Your task to perform on an android device: toggle location history Image 0: 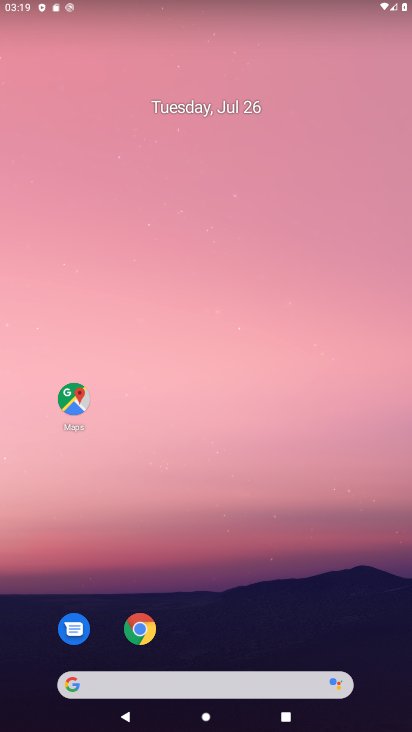
Step 0: drag from (256, 602) to (289, 47)
Your task to perform on an android device: toggle location history Image 1: 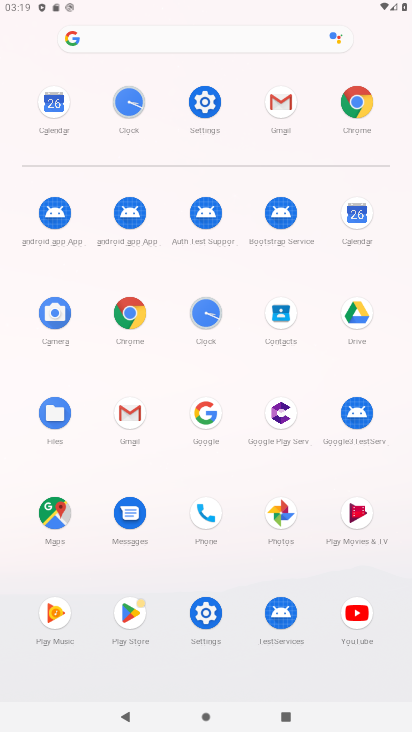
Step 1: click (51, 505)
Your task to perform on an android device: toggle location history Image 2: 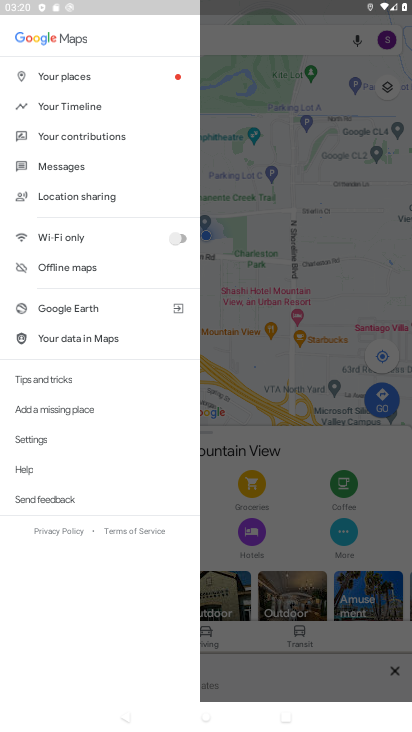
Step 2: click (42, 442)
Your task to perform on an android device: toggle location history Image 3: 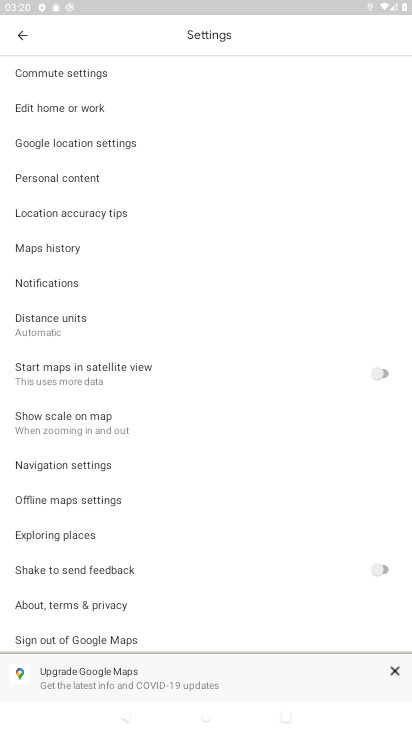
Step 3: drag from (156, 587) to (157, 338)
Your task to perform on an android device: toggle location history Image 4: 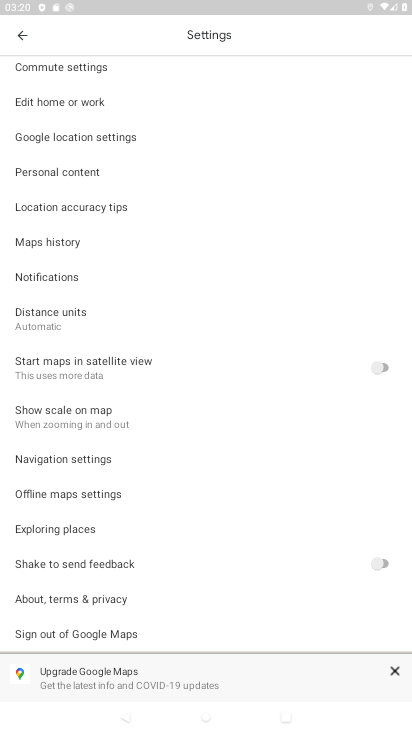
Step 4: click (24, 33)
Your task to perform on an android device: toggle location history Image 5: 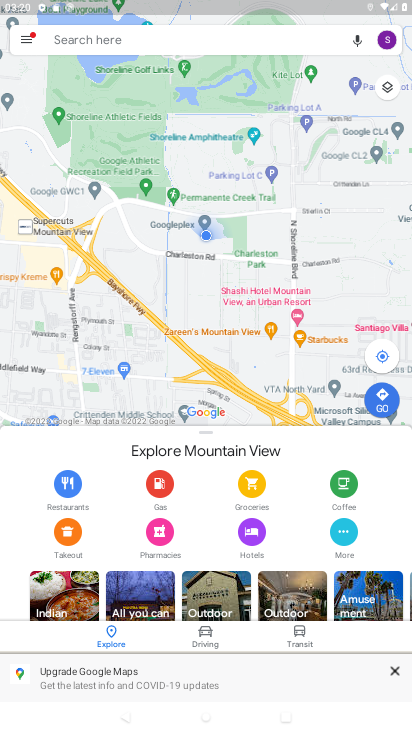
Step 5: click (27, 34)
Your task to perform on an android device: toggle location history Image 6: 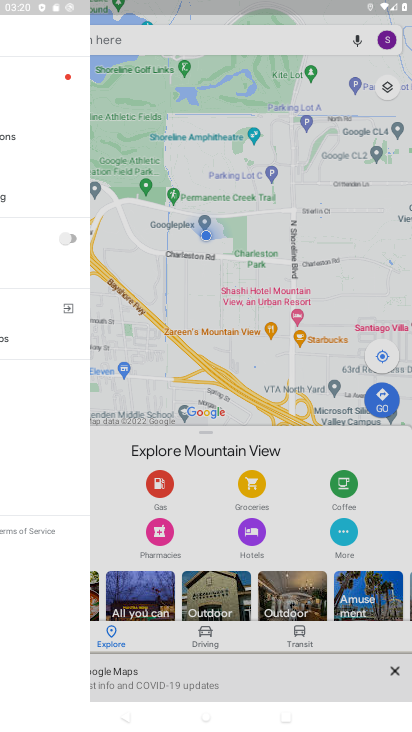
Step 6: drag from (30, 37) to (75, 105)
Your task to perform on an android device: toggle location history Image 7: 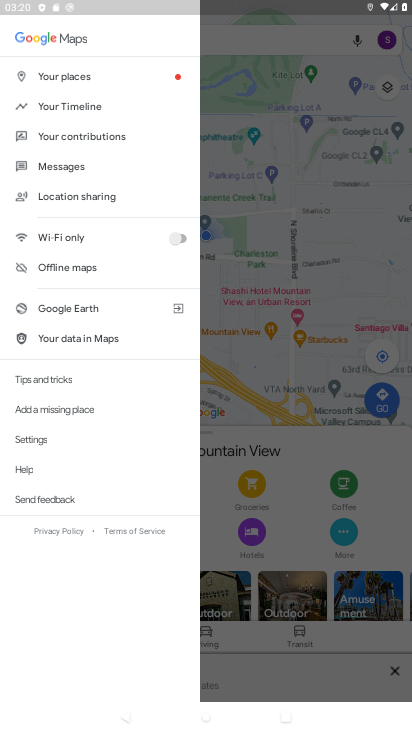
Step 7: click (75, 105)
Your task to perform on an android device: toggle location history Image 8: 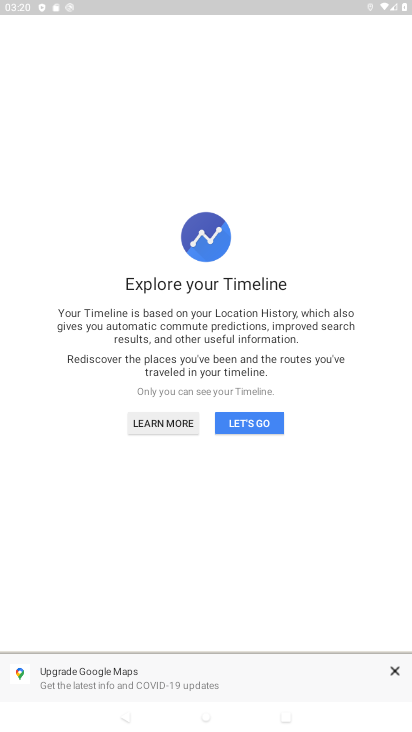
Step 8: click (248, 419)
Your task to perform on an android device: toggle location history Image 9: 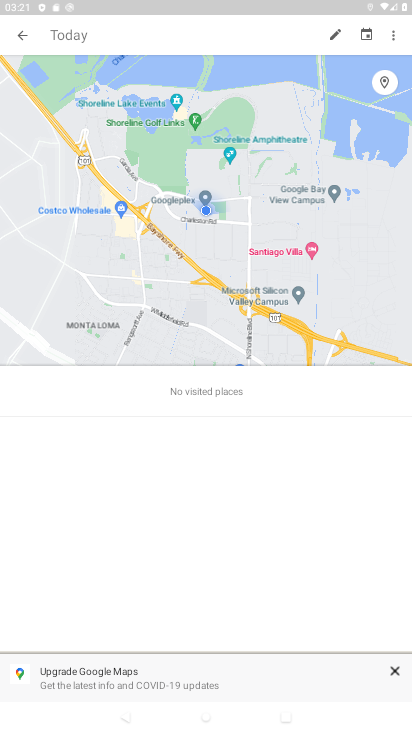
Step 9: click (390, 25)
Your task to perform on an android device: toggle location history Image 10: 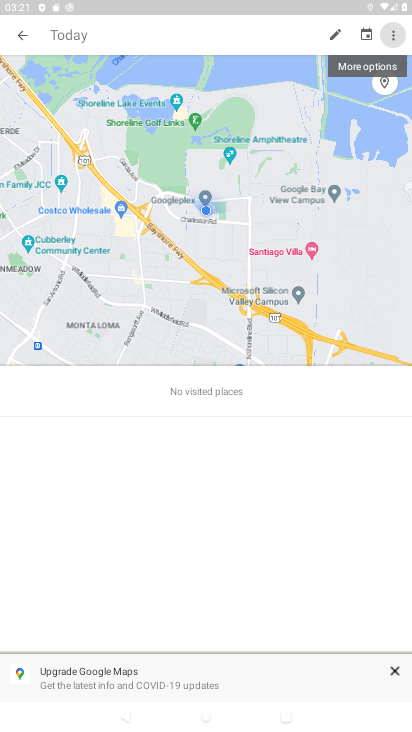
Step 10: click (390, 25)
Your task to perform on an android device: toggle location history Image 11: 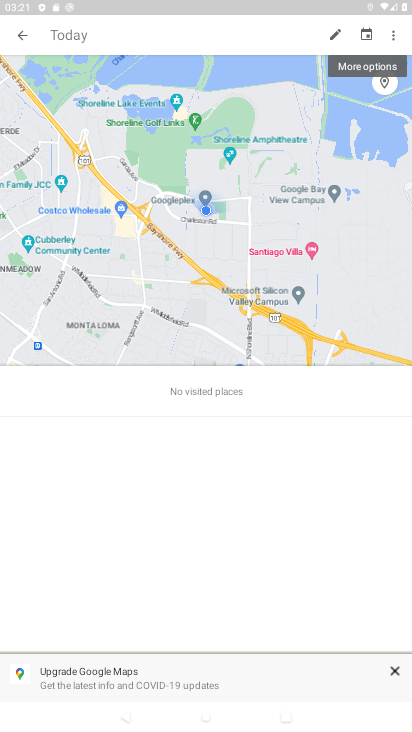
Step 11: click (392, 39)
Your task to perform on an android device: toggle location history Image 12: 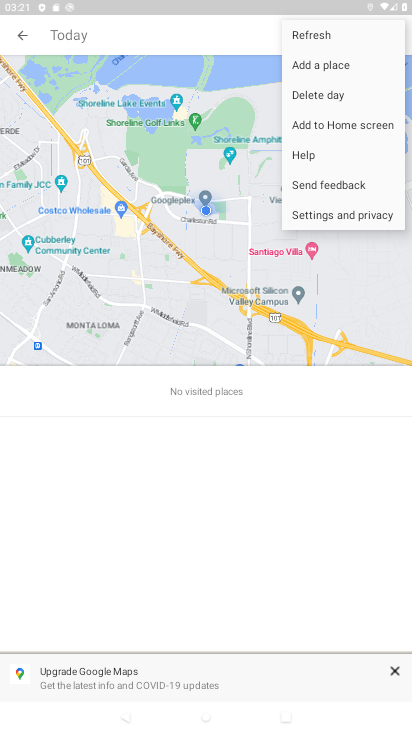
Step 12: click (330, 217)
Your task to perform on an android device: toggle location history Image 13: 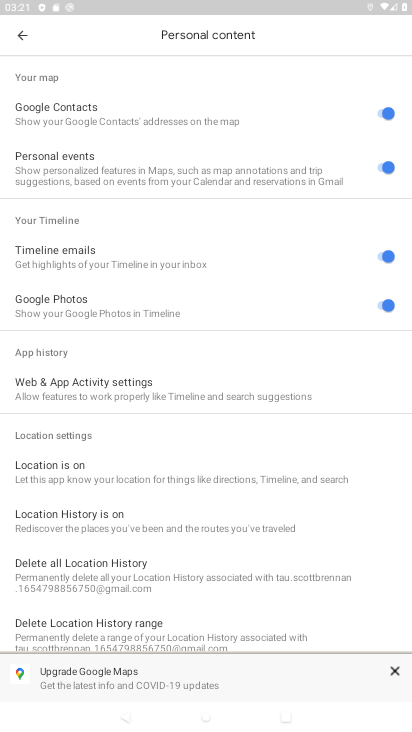
Step 13: click (97, 513)
Your task to perform on an android device: toggle location history Image 14: 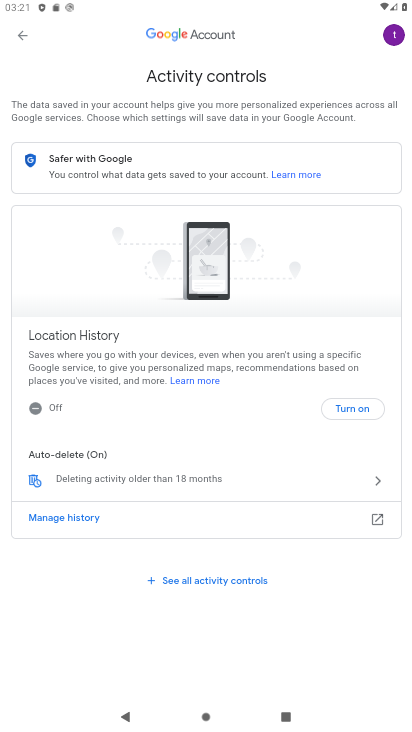
Step 14: click (338, 402)
Your task to perform on an android device: toggle location history Image 15: 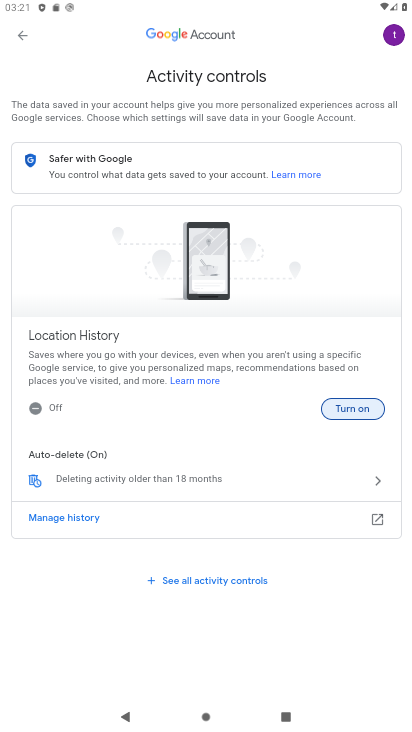
Step 15: click (353, 405)
Your task to perform on an android device: toggle location history Image 16: 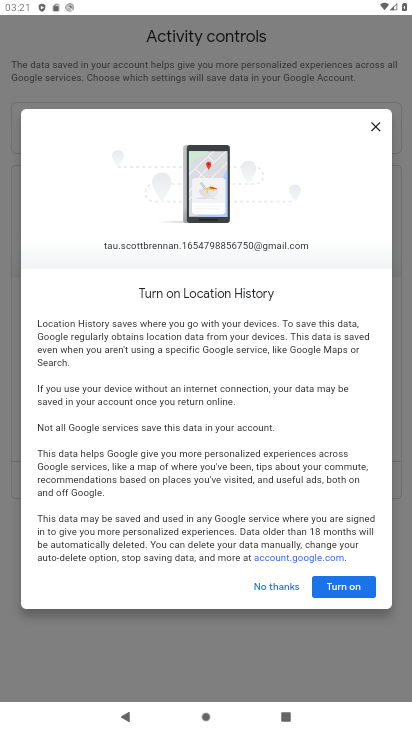
Step 16: drag from (262, 496) to (283, 224)
Your task to perform on an android device: toggle location history Image 17: 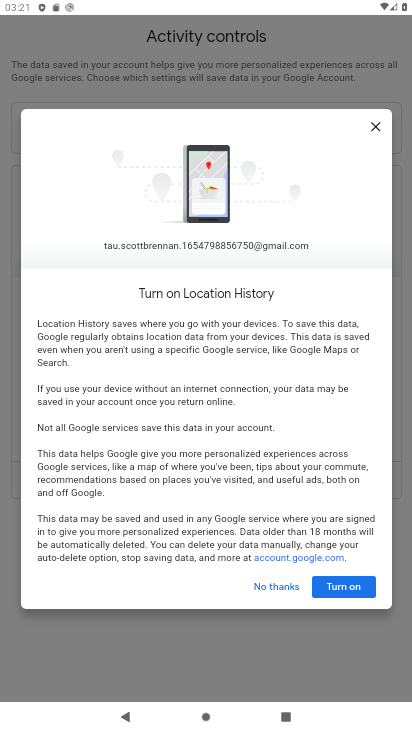
Step 17: click (349, 587)
Your task to perform on an android device: toggle location history Image 18: 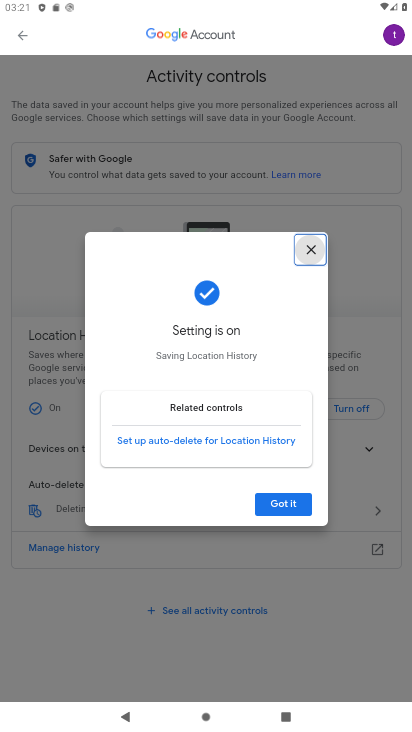
Step 18: click (288, 501)
Your task to perform on an android device: toggle location history Image 19: 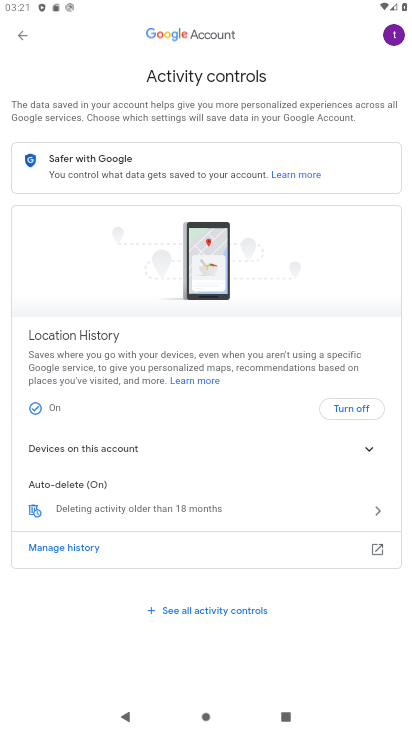
Step 19: task complete